Your task to perform on an android device: turn off sleep mode Image 0: 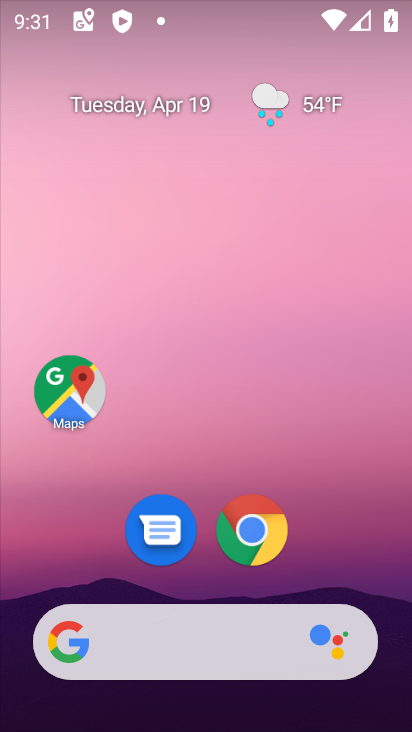
Step 0: drag from (221, 440) to (213, 52)
Your task to perform on an android device: turn off sleep mode Image 1: 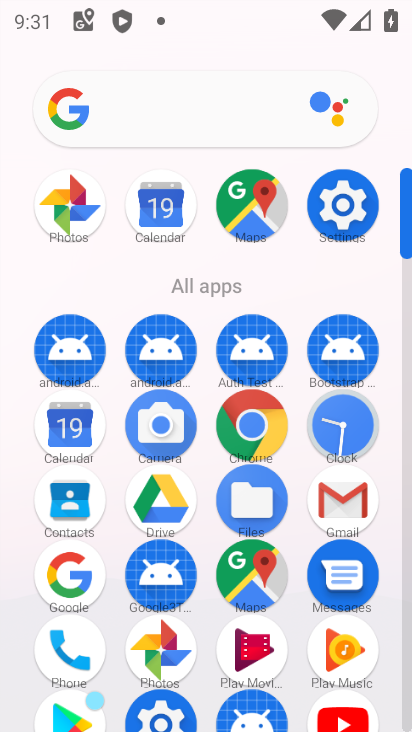
Step 1: click (341, 207)
Your task to perform on an android device: turn off sleep mode Image 2: 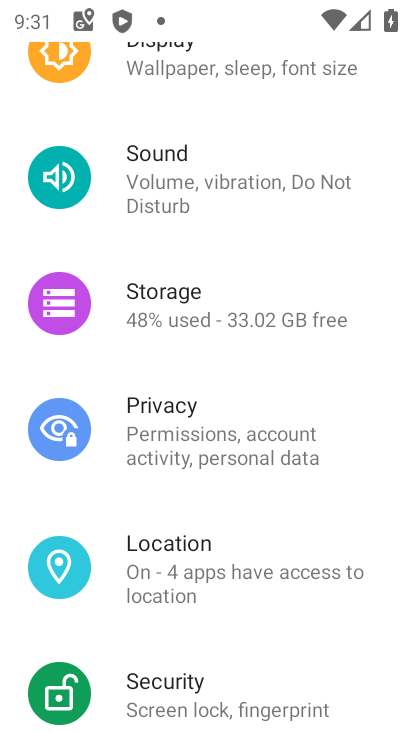
Step 2: click (196, 61)
Your task to perform on an android device: turn off sleep mode Image 3: 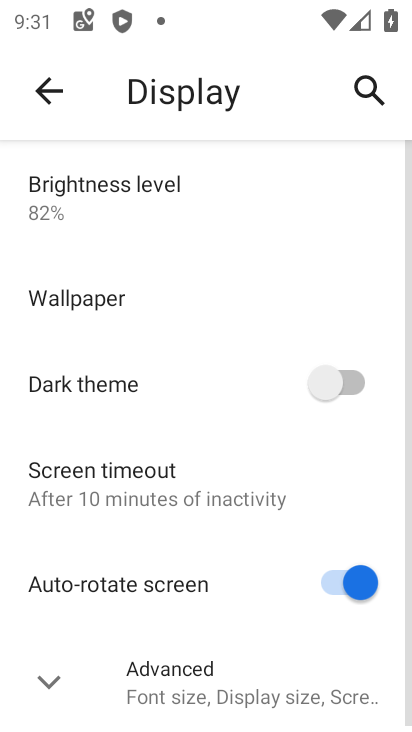
Step 3: click (117, 483)
Your task to perform on an android device: turn off sleep mode Image 4: 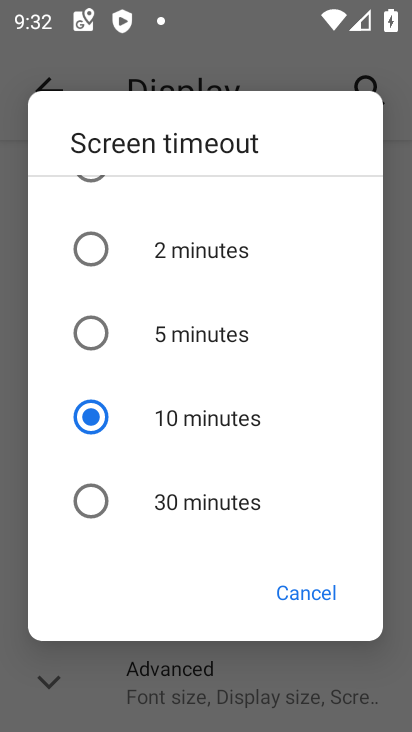
Step 4: task complete